Your task to perform on an android device: turn notification dots on Image 0: 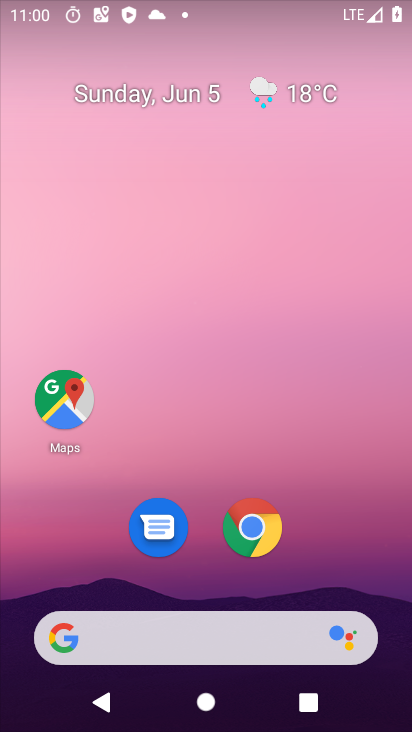
Step 0: drag from (336, 437) to (251, 22)
Your task to perform on an android device: turn notification dots on Image 1: 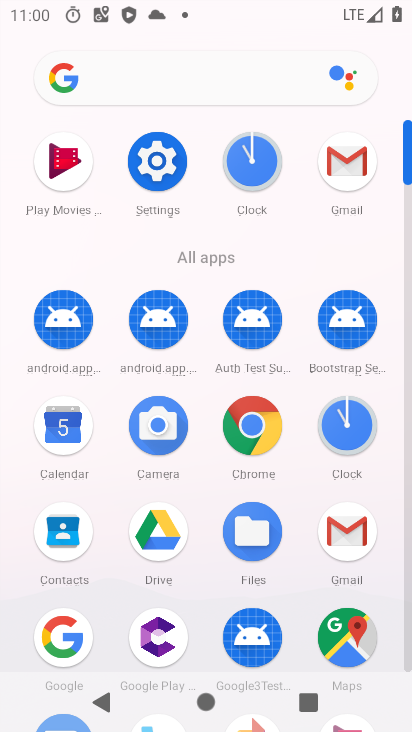
Step 1: click (169, 166)
Your task to perform on an android device: turn notification dots on Image 2: 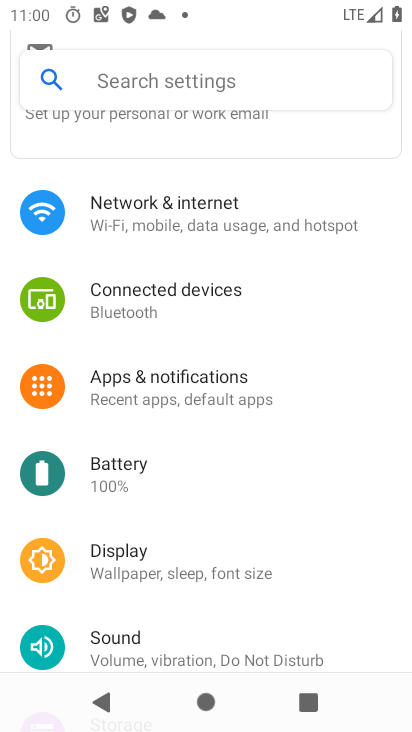
Step 2: click (217, 385)
Your task to perform on an android device: turn notification dots on Image 3: 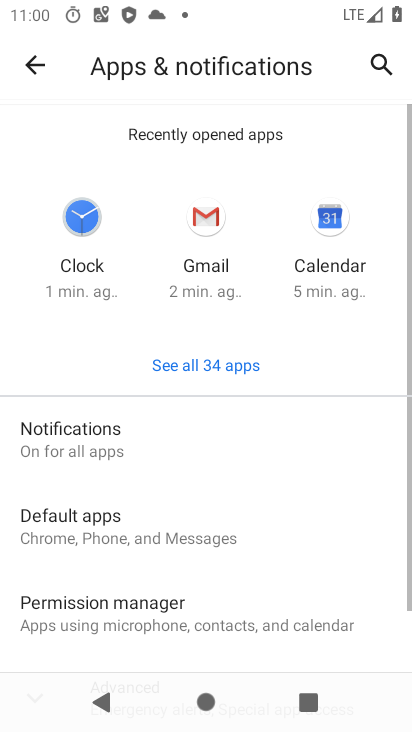
Step 3: click (157, 441)
Your task to perform on an android device: turn notification dots on Image 4: 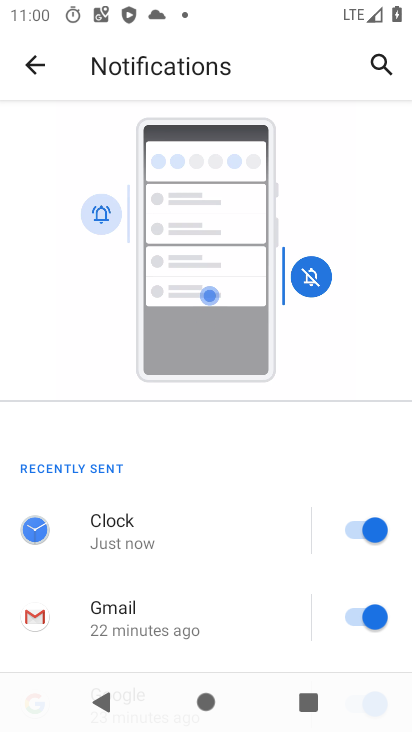
Step 4: drag from (207, 544) to (183, 47)
Your task to perform on an android device: turn notification dots on Image 5: 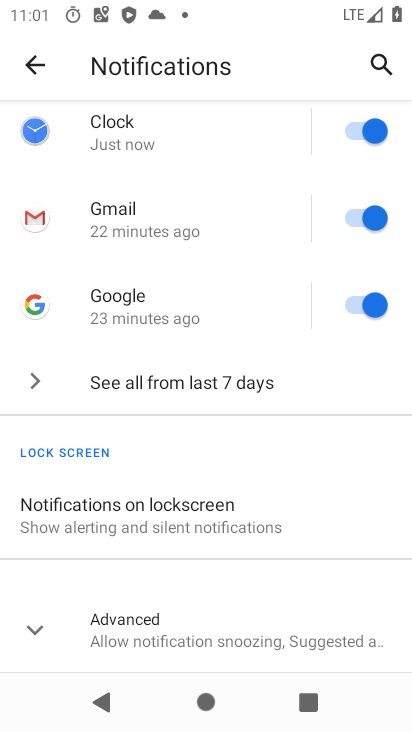
Step 5: click (274, 624)
Your task to perform on an android device: turn notification dots on Image 6: 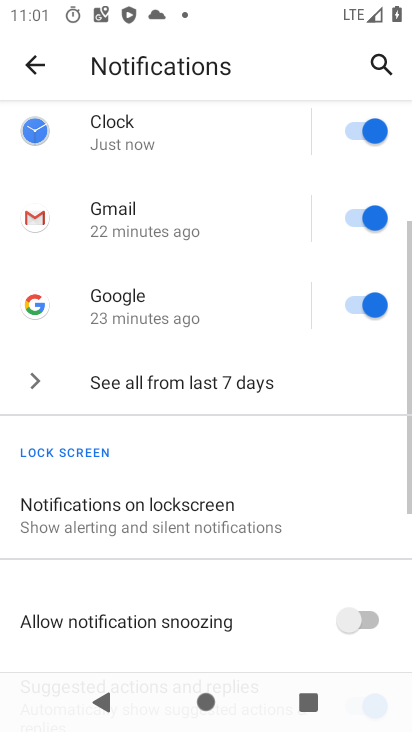
Step 6: task complete